Your task to perform on an android device: What is the recent news? Image 0: 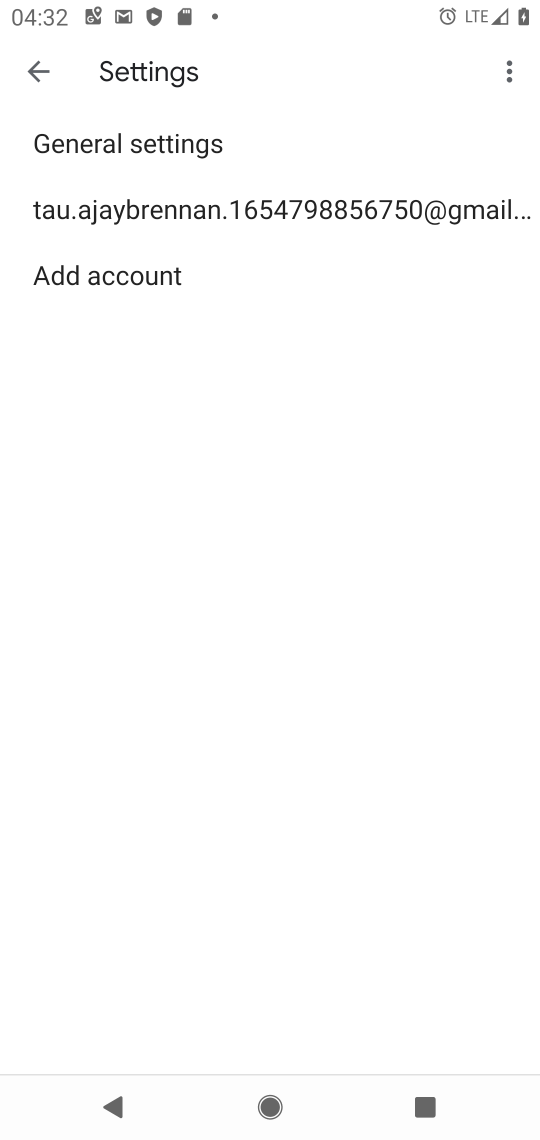
Step 0: press back button
Your task to perform on an android device: What is the recent news? Image 1: 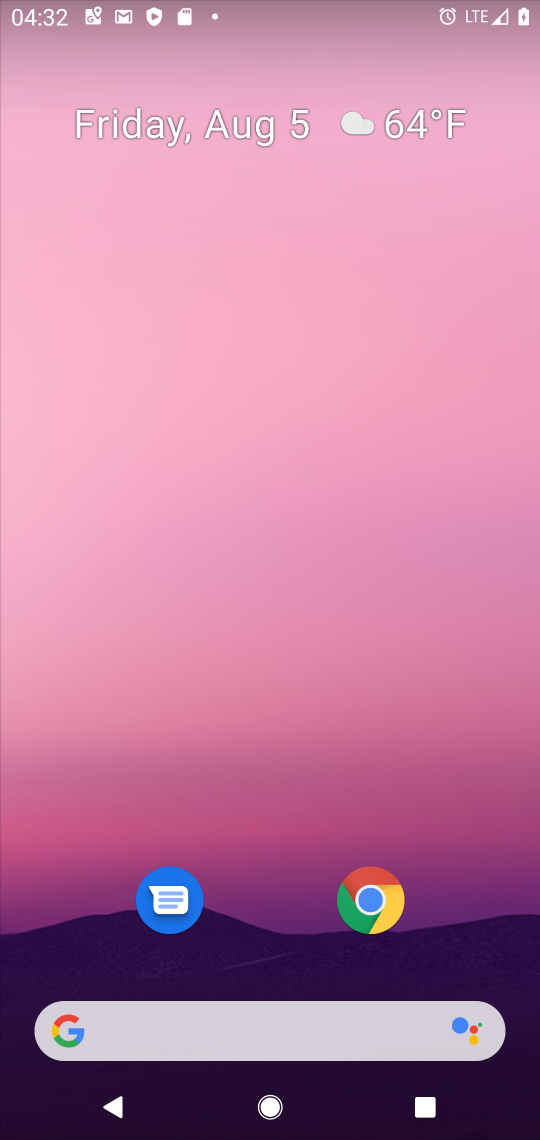
Step 1: click (186, 1035)
Your task to perform on an android device: What is the recent news? Image 2: 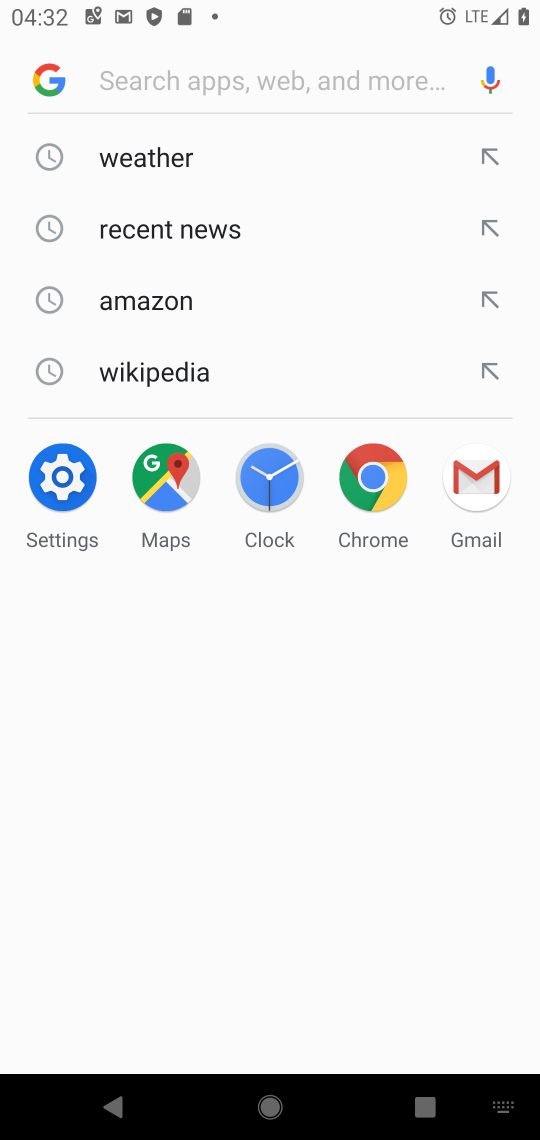
Step 2: click (169, 238)
Your task to perform on an android device: What is the recent news? Image 3: 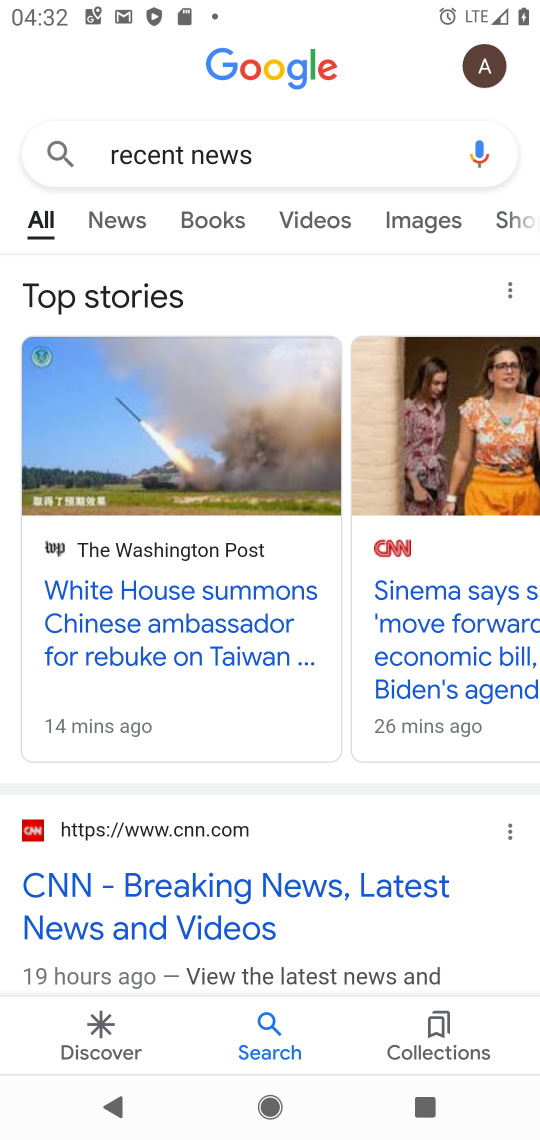
Step 3: task complete